Your task to perform on an android device: Open calendar and show me the third week of next month Image 0: 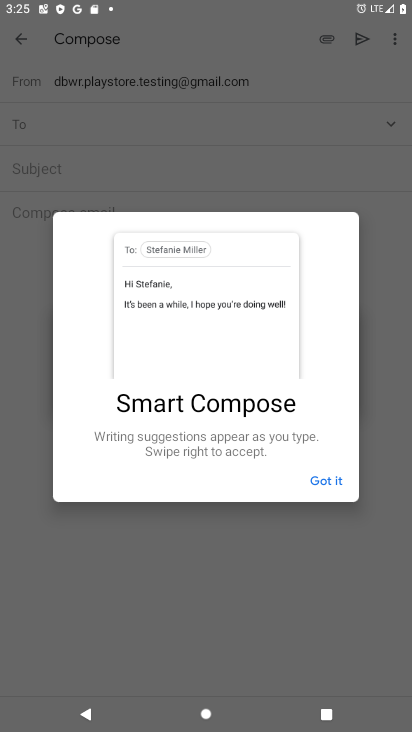
Step 0: press home button
Your task to perform on an android device: Open calendar and show me the third week of next month Image 1: 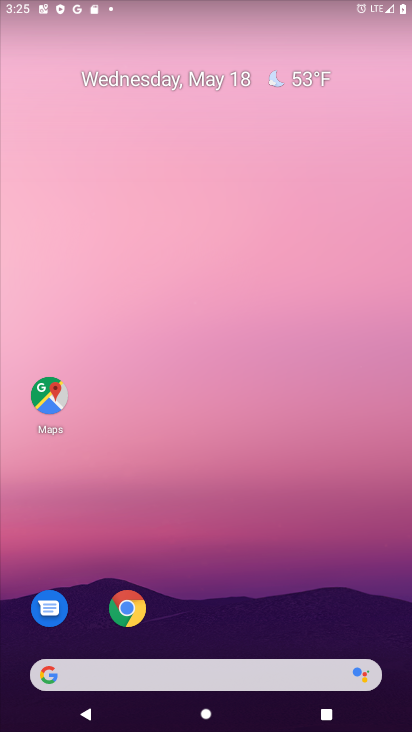
Step 1: drag from (328, 583) to (264, 16)
Your task to perform on an android device: Open calendar and show me the third week of next month Image 2: 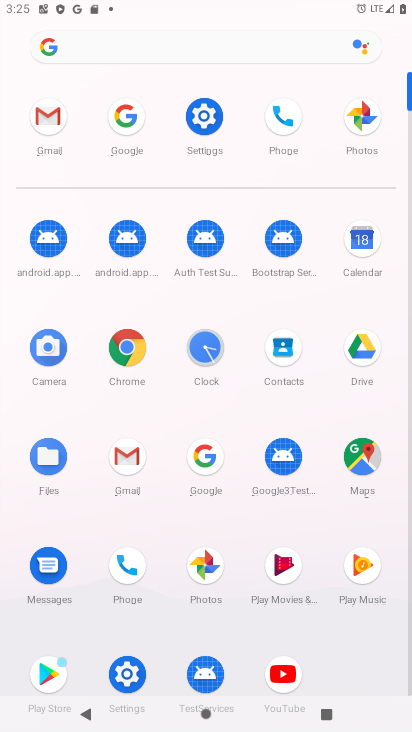
Step 2: click (358, 245)
Your task to perform on an android device: Open calendar and show me the third week of next month Image 3: 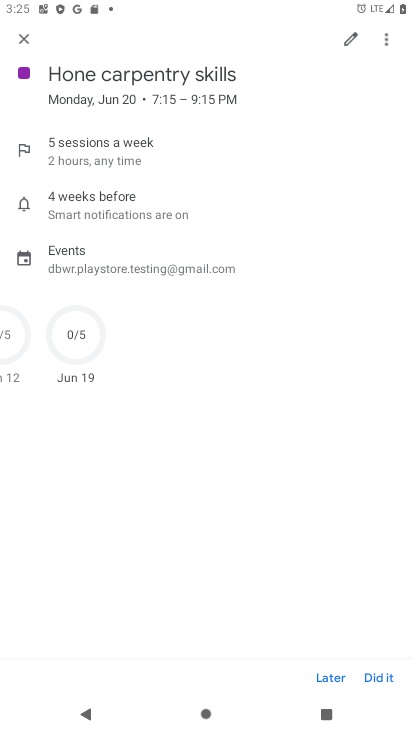
Step 3: click (17, 32)
Your task to perform on an android device: Open calendar and show me the third week of next month Image 4: 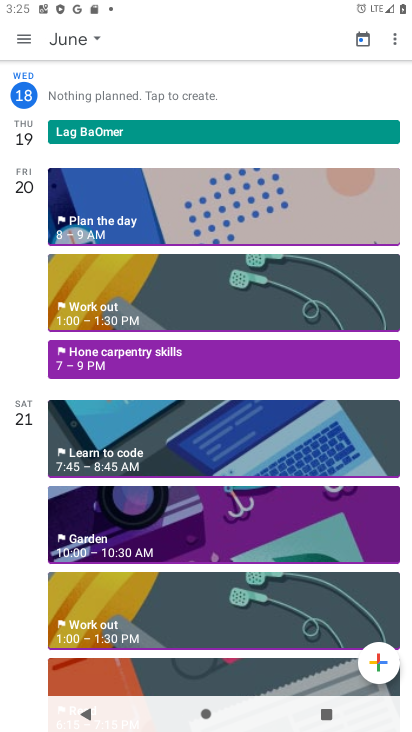
Step 4: click (24, 43)
Your task to perform on an android device: Open calendar and show me the third week of next month Image 5: 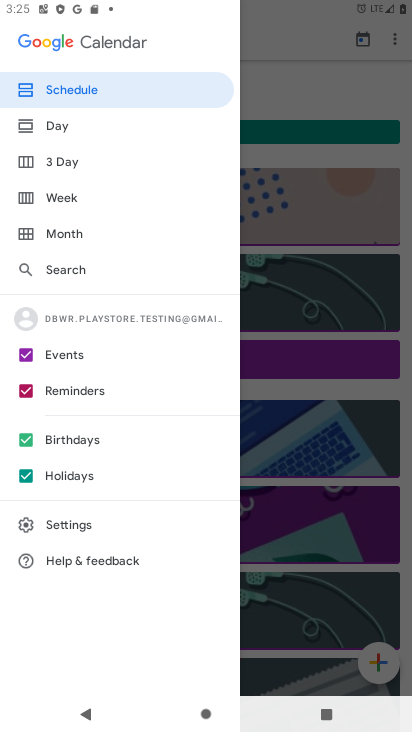
Step 5: click (64, 197)
Your task to perform on an android device: Open calendar and show me the third week of next month Image 6: 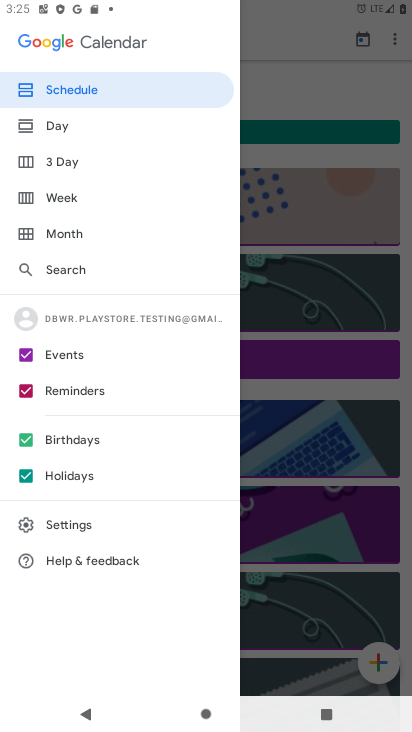
Step 6: click (64, 197)
Your task to perform on an android device: Open calendar and show me the third week of next month Image 7: 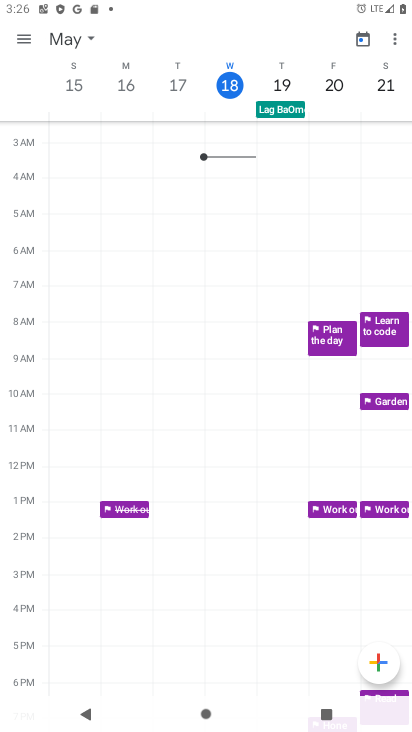
Step 7: click (90, 38)
Your task to perform on an android device: Open calendar and show me the third week of next month Image 8: 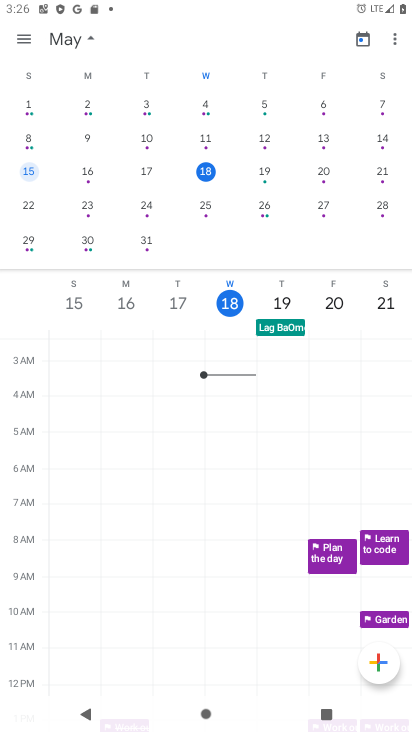
Step 8: drag from (326, 141) to (10, 132)
Your task to perform on an android device: Open calendar and show me the third week of next month Image 9: 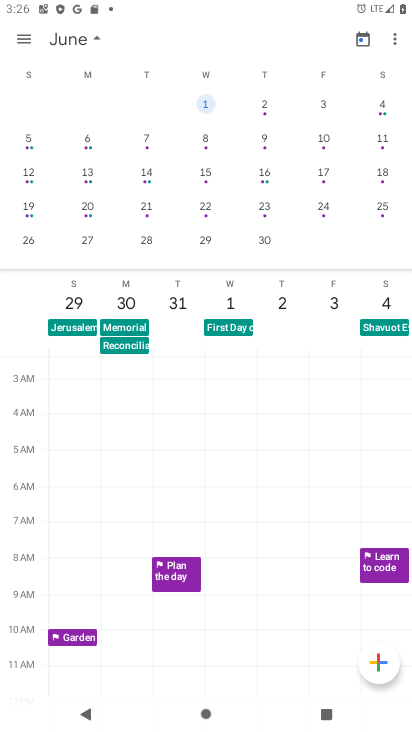
Step 9: click (279, 142)
Your task to perform on an android device: Open calendar and show me the third week of next month Image 10: 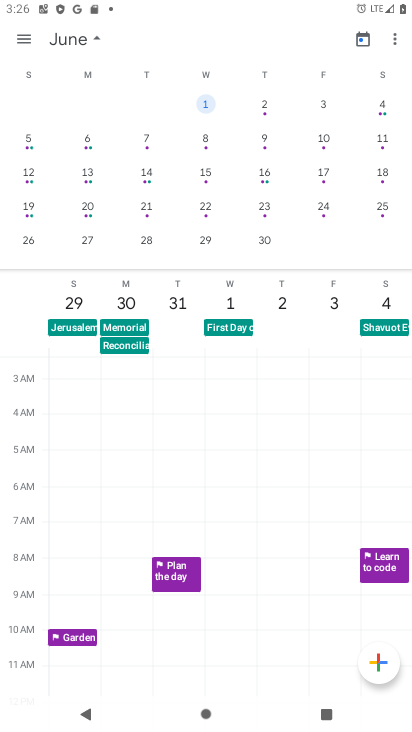
Step 10: task complete